Your task to perform on an android device: Open calendar and show me the second week of next month Image 0: 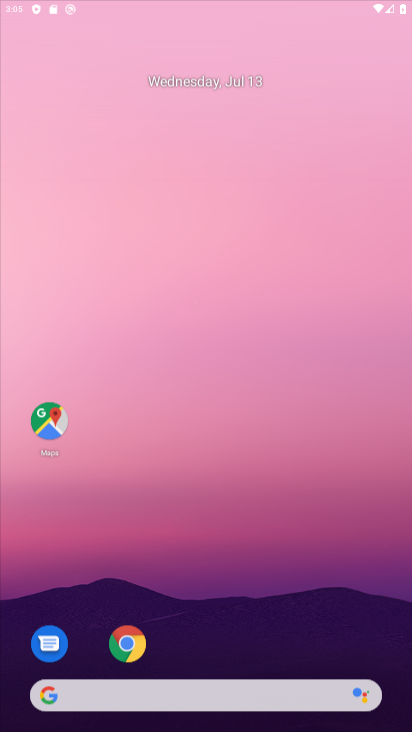
Step 0: click (311, 3)
Your task to perform on an android device: Open calendar and show me the second week of next month Image 1: 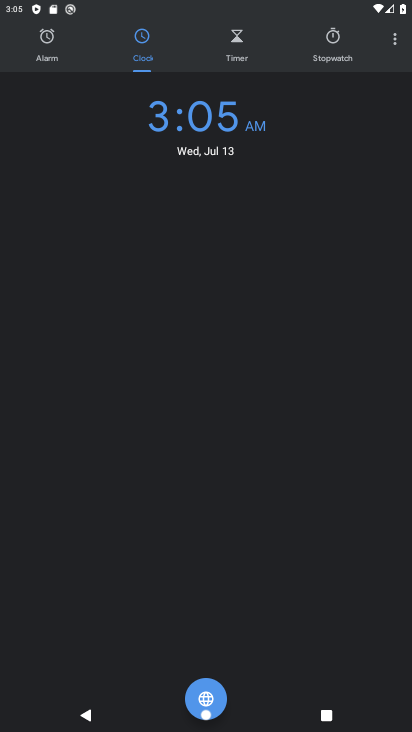
Step 1: press back button
Your task to perform on an android device: Open calendar and show me the second week of next month Image 2: 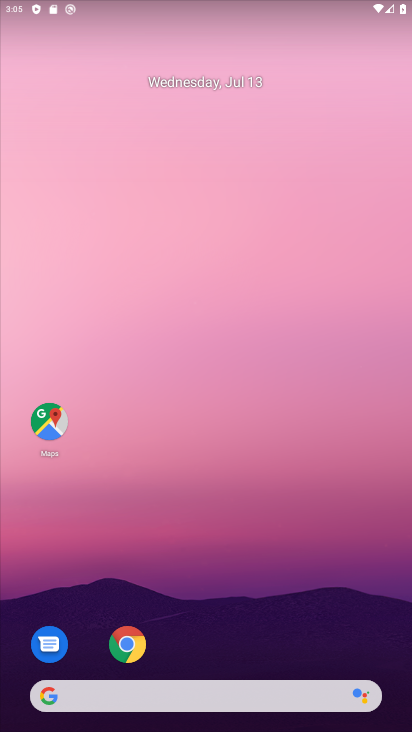
Step 2: drag from (242, 593) to (304, 10)
Your task to perform on an android device: Open calendar and show me the second week of next month Image 3: 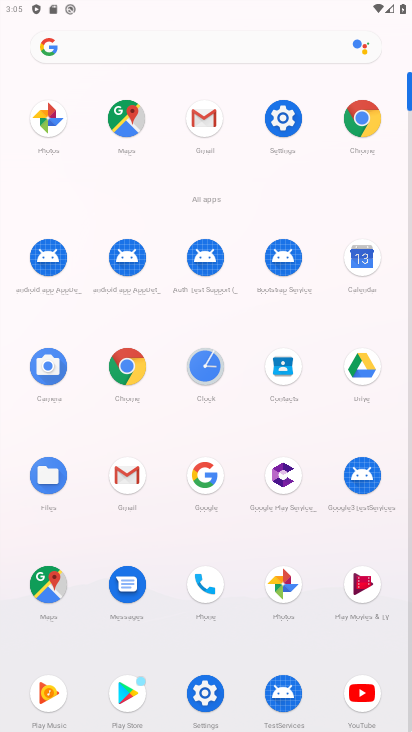
Step 3: click (360, 263)
Your task to perform on an android device: Open calendar and show me the second week of next month Image 4: 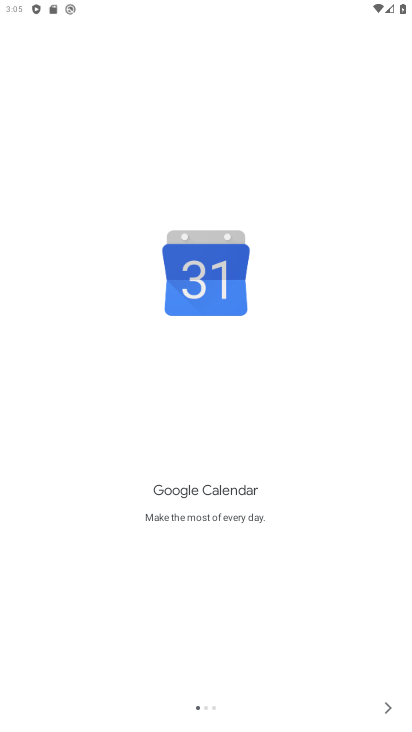
Step 4: click (388, 710)
Your task to perform on an android device: Open calendar and show me the second week of next month Image 5: 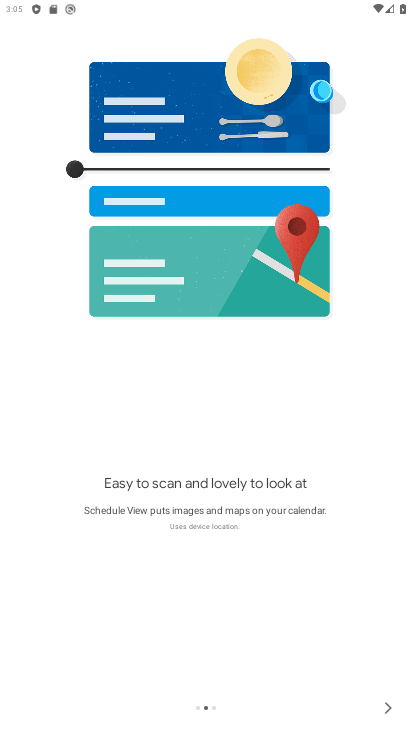
Step 5: click (385, 709)
Your task to perform on an android device: Open calendar and show me the second week of next month Image 6: 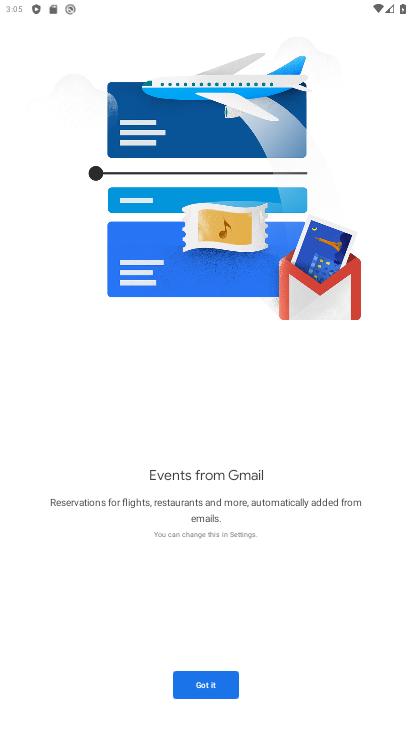
Step 6: click (200, 680)
Your task to perform on an android device: Open calendar and show me the second week of next month Image 7: 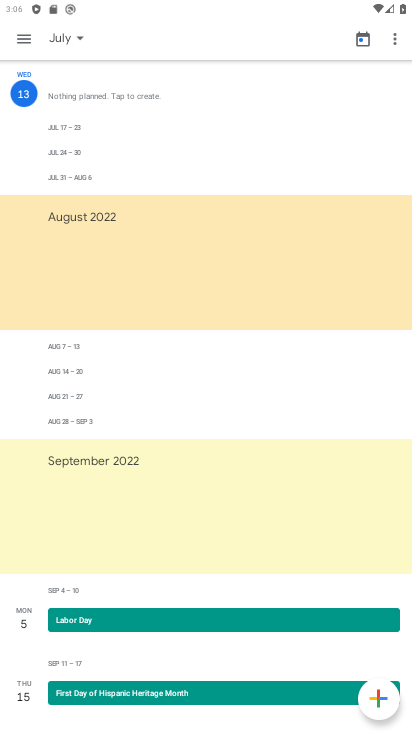
Step 7: click (68, 35)
Your task to perform on an android device: Open calendar and show me the second week of next month Image 8: 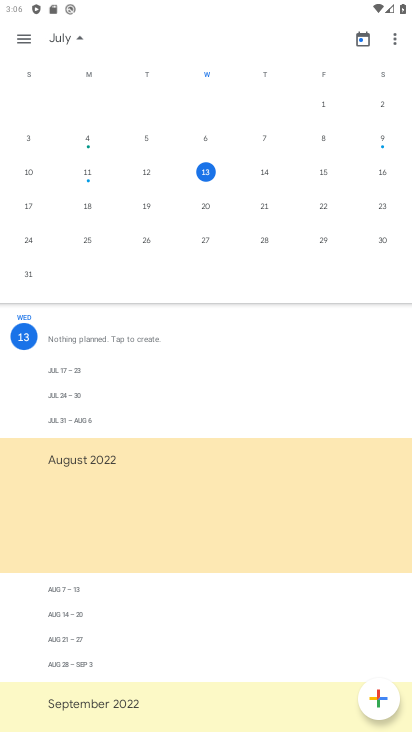
Step 8: drag from (338, 222) to (0, 195)
Your task to perform on an android device: Open calendar and show me the second week of next month Image 9: 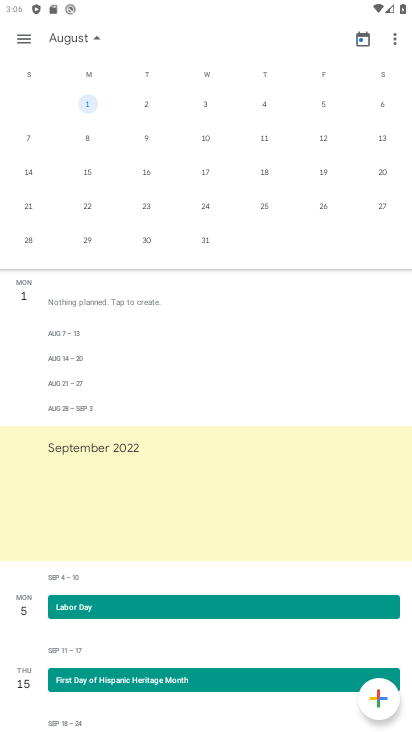
Step 9: click (84, 139)
Your task to perform on an android device: Open calendar and show me the second week of next month Image 10: 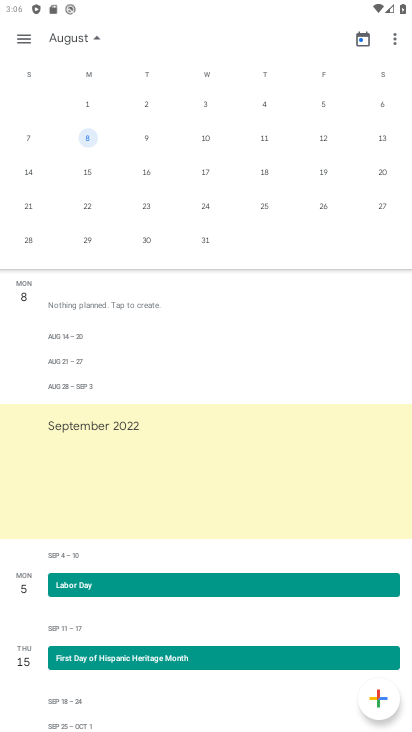
Step 10: task complete